Your task to perform on an android device: turn off airplane mode Image 0: 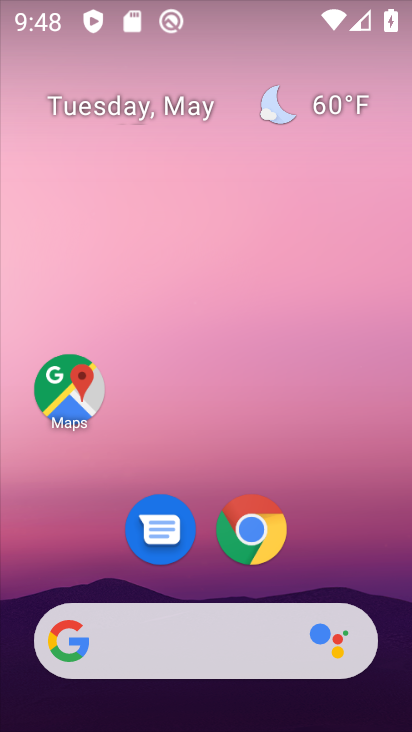
Step 0: drag from (215, 13) to (272, 321)
Your task to perform on an android device: turn off airplane mode Image 1: 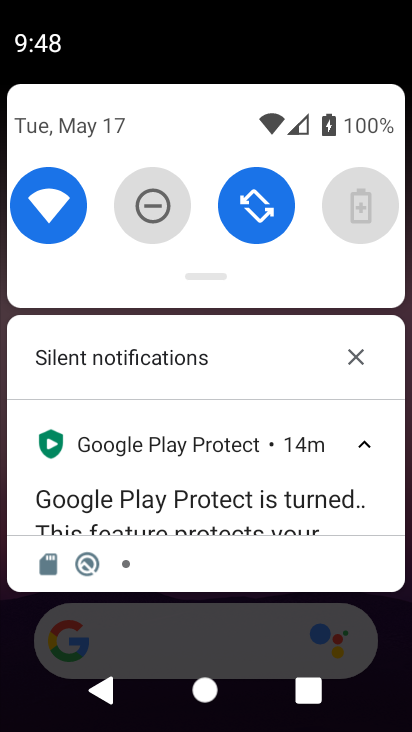
Step 1: drag from (284, 269) to (294, 392)
Your task to perform on an android device: turn off airplane mode Image 2: 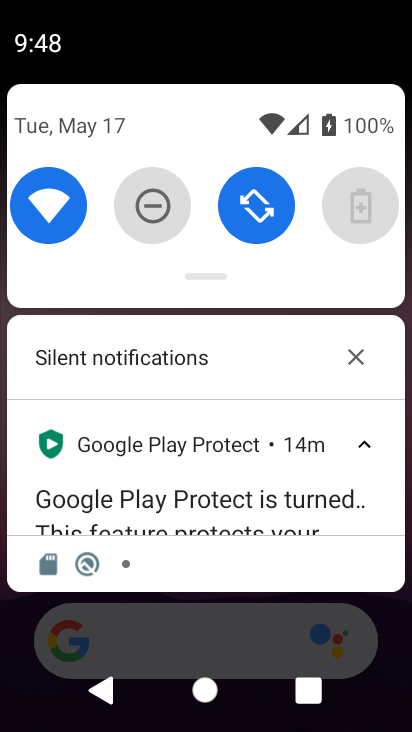
Step 2: click (355, 273)
Your task to perform on an android device: turn off airplane mode Image 3: 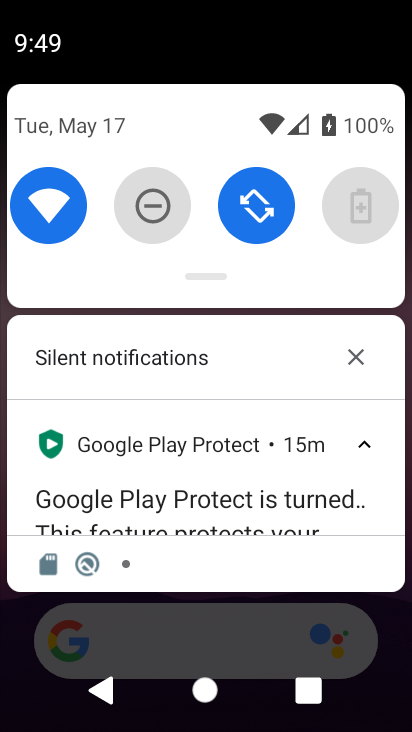
Step 3: task complete